Your task to perform on an android device: turn on location history Image 0: 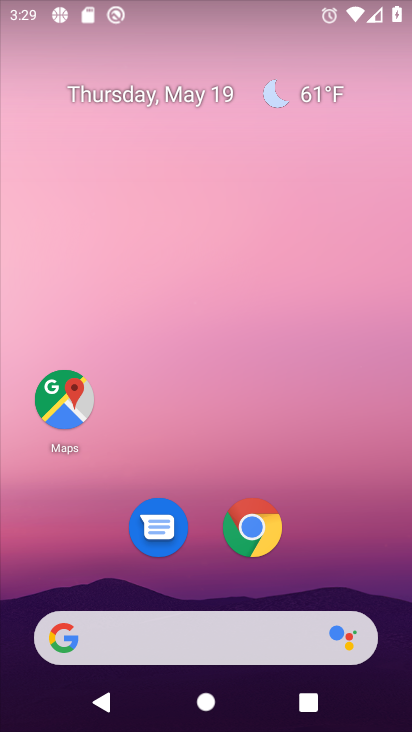
Step 0: drag from (200, 578) to (303, 53)
Your task to perform on an android device: turn on location history Image 1: 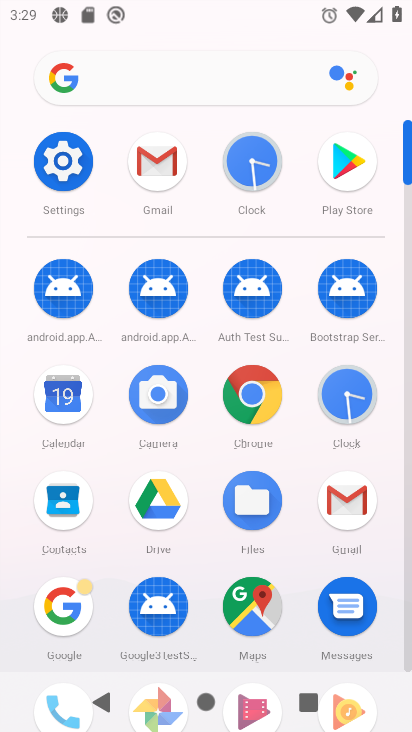
Step 1: click (61, 144)
Your task to perform on an android device: turn on location history Image 2: 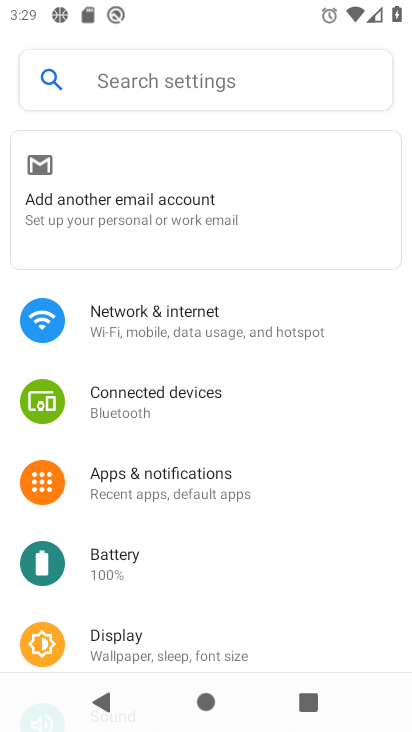
Step 2: drag from (155, 637) to (269, 123)
Your task to perform on an android device: turn on location history Image 3: 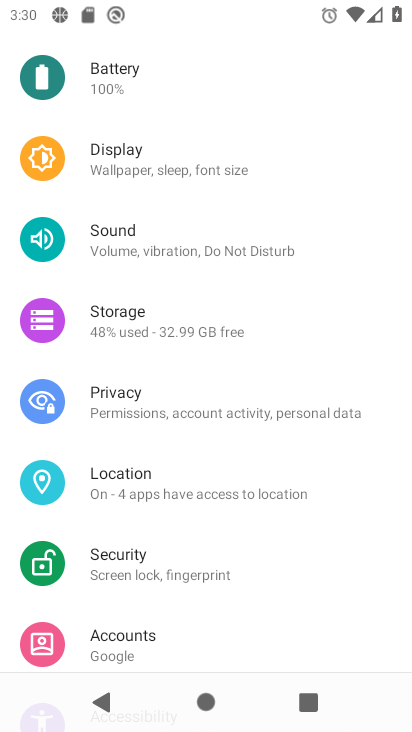
Step 3: click (135, 498)
Your task to perform on an android device: turn on location history Image 4: 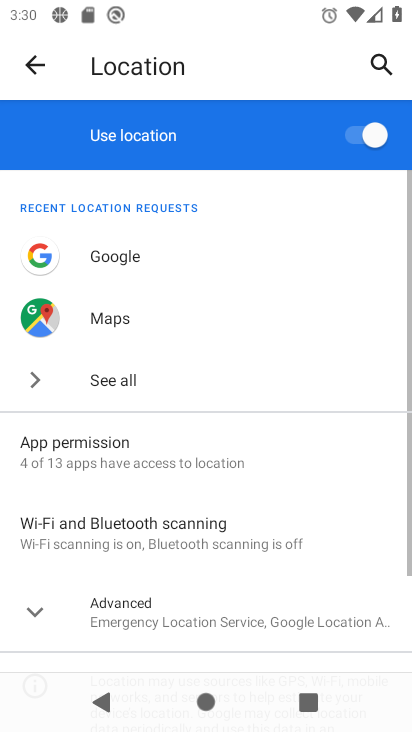
Step 4: click (148, 605)
Your task to perform on an android device: turn on location history Image 5: 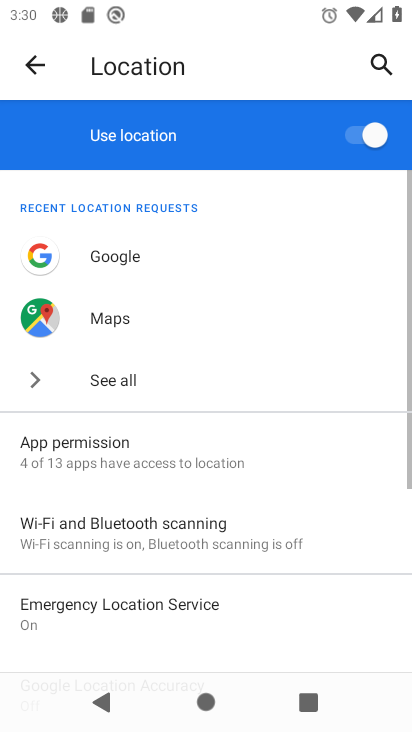
Step 5: drag from (144, 615) to (253, 151)
Your task to perform on an android device: turn on location history Image 6: 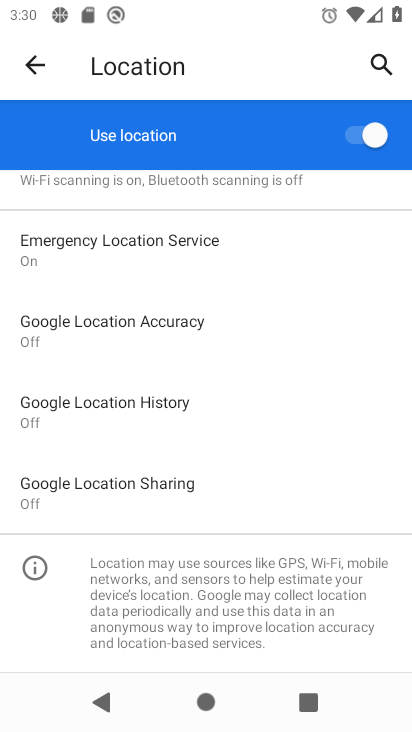
Step 6: click (74, 408)
Your task to perform on an android device: turn on location history Image 7: 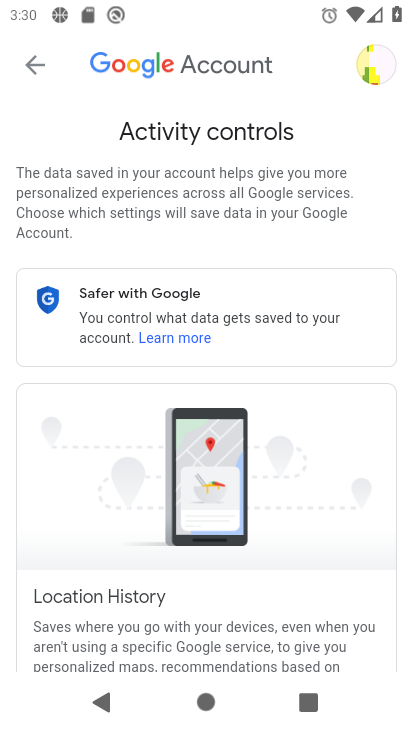
Step 7: task complete